Your task to perform on an android device: turn notification dots off Image 0: 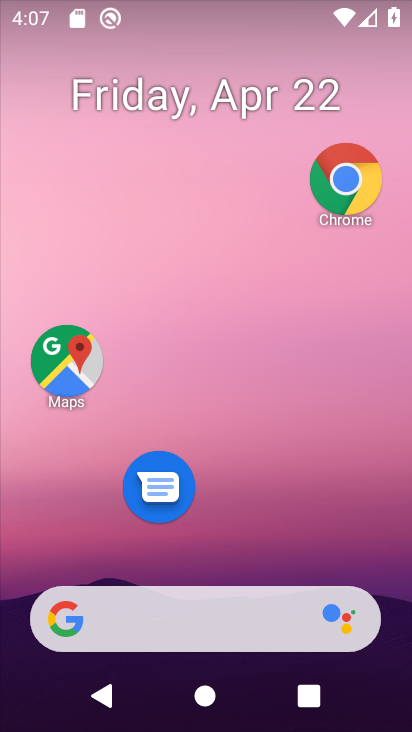
Step 0: drag from (319, 524) to (313, 44)
Your task to perform on an android device: turn notification dots off Image 1: 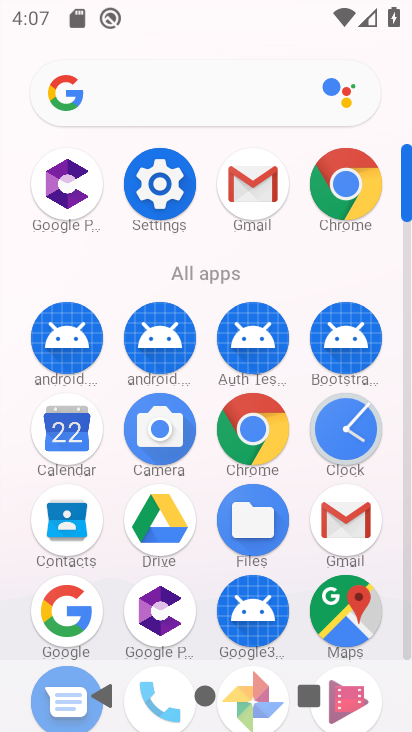
Step 1: click (147, 188)
Your task to perform on an android device: turn notification dots off Image 2: 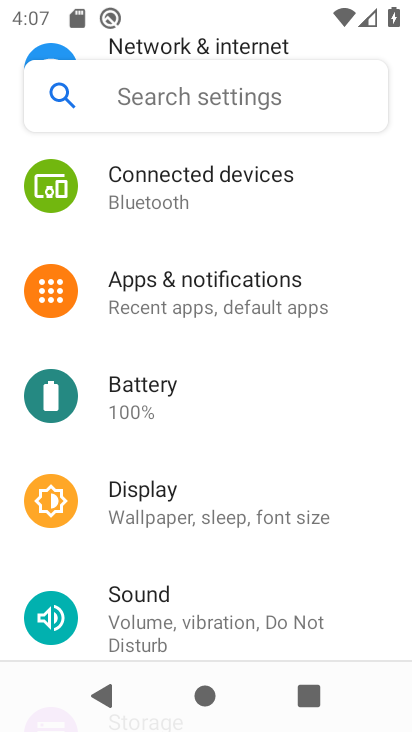
Step 2: drag from (228, 583) to (267, 325)
Your task to perform on an android device: turn notification dots off Image 3: 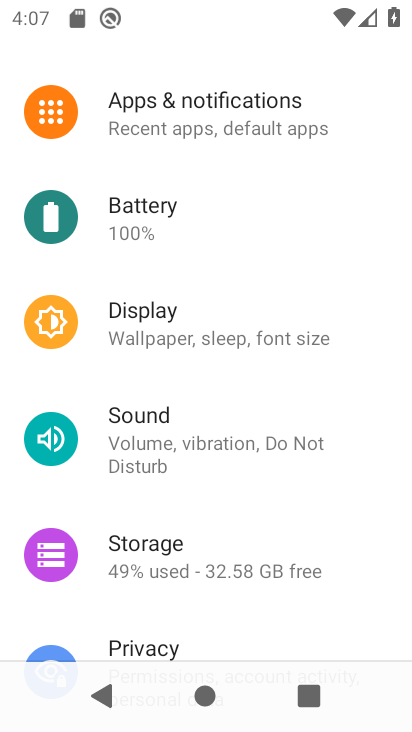
Step 3: click (186, 125)
Your task to perform on an android device: turn notification dots off Image 4: 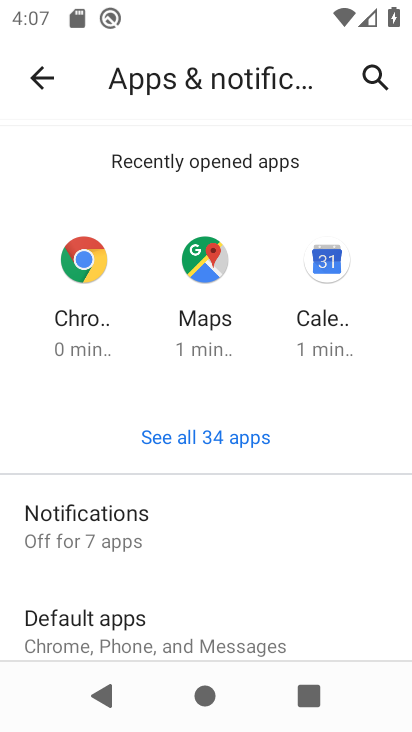
Step 4: click (200, 517)
Your task to perform on an android device: turn notification dots off Image 5: 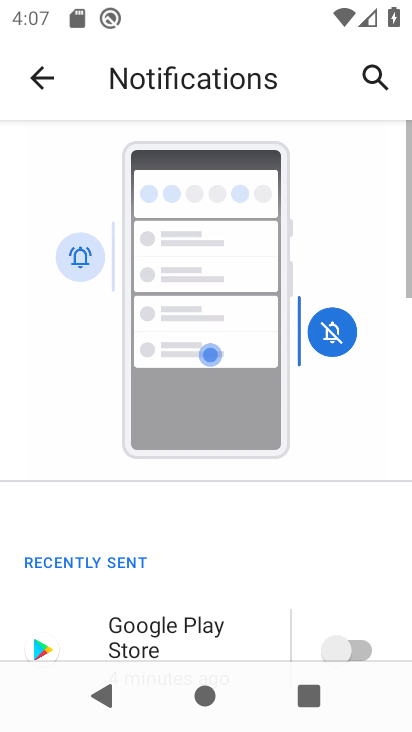
Step 5: drag from (196, 563) to (247, 70)
Your task to perform on an android device: turn notification dots off Image 6: 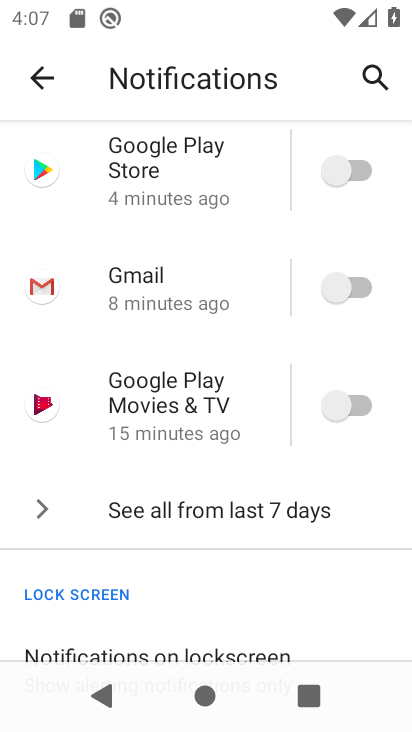
Step 6: drag from (180, 544) to (260, 40)
Your task to perform on an android device: turn notification dots off Image 7: 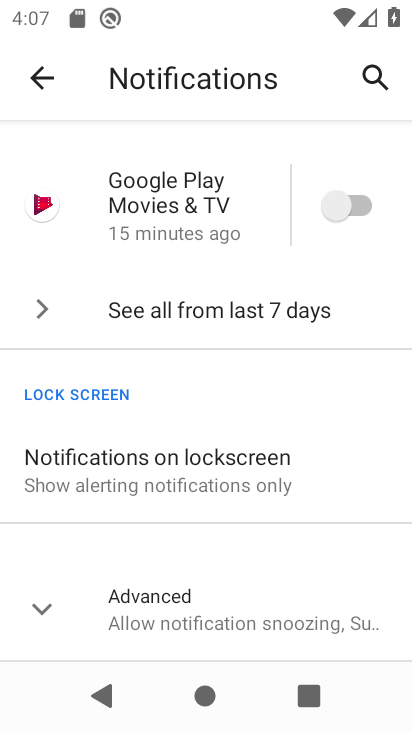
Step 7: click (195, 609)
Your task to perform on an android device: turn notification dots off Image 8: 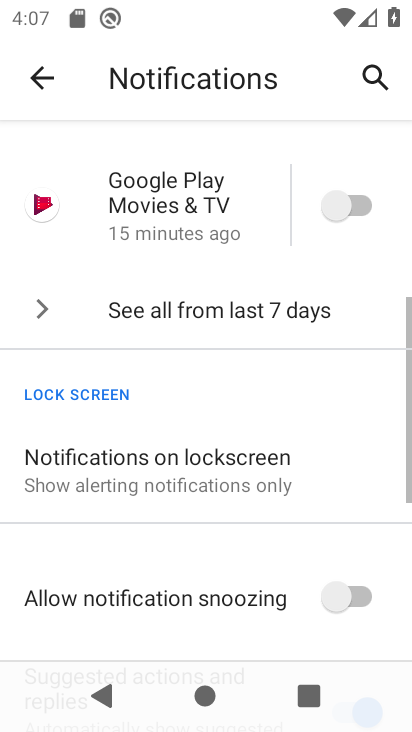
Step 8: drag from (194, 614) to (207, 80)
Your task to perform on an android device: turn notification dots off Image 9: 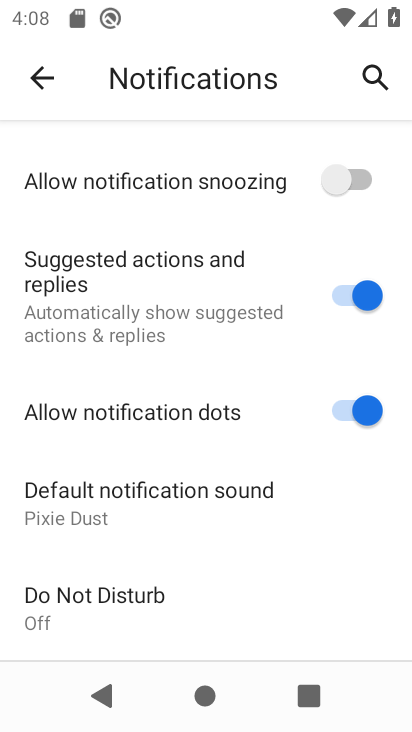
Step 9: click (341, 412)
Your task to perform on an android device: turn notification dots off Image 10: 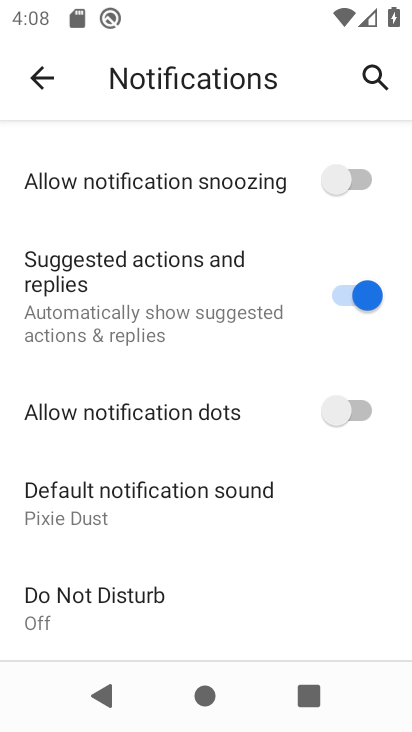
Step 10: task complete